Your task to perform on an android device: turn on the 12-hour format for clock Image 0: 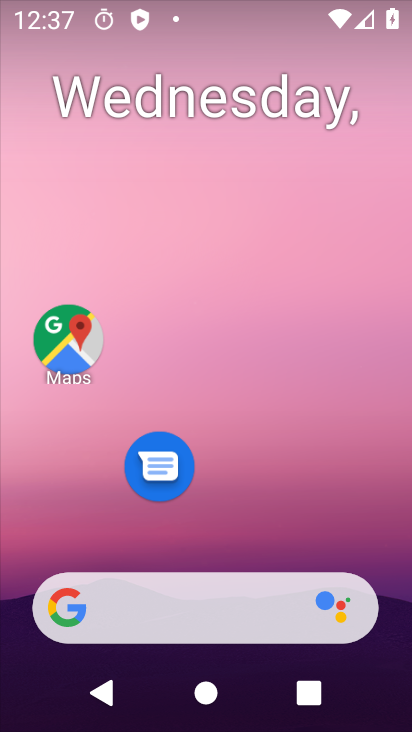
Step 0: drag from (283, 524) to (275, 9)
Your task to perform on an android device: turn on the 12-hour format for clock Image 1: 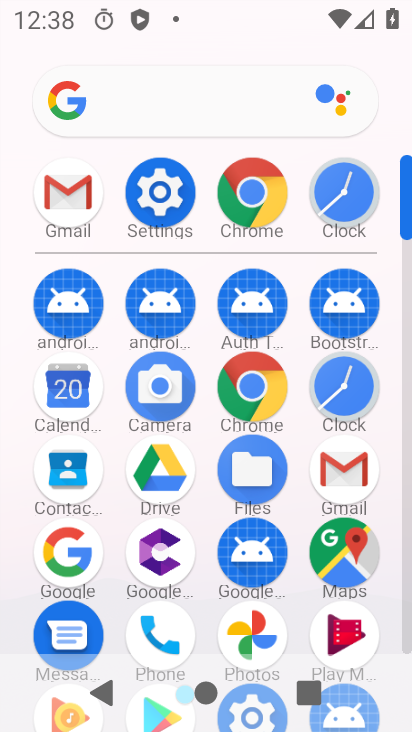
Step 1: click (339, 209)
Your task to perform on an android device: turn on the 12-hour format for clock Image 2: 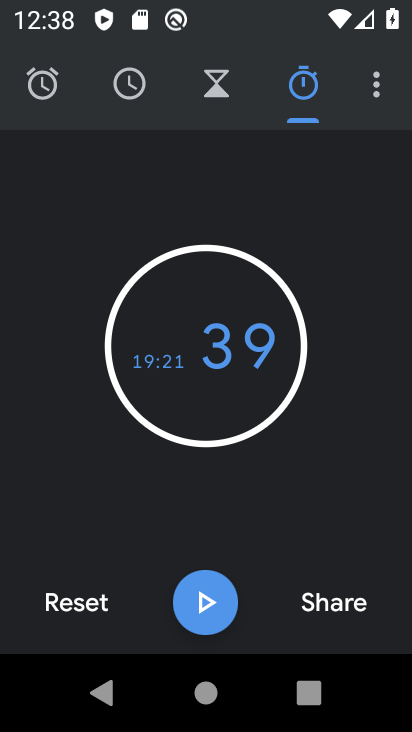
Step 2: click (395, 95)
Your task to perform on an android device: turn on the 12-hour format for clock Image 3: 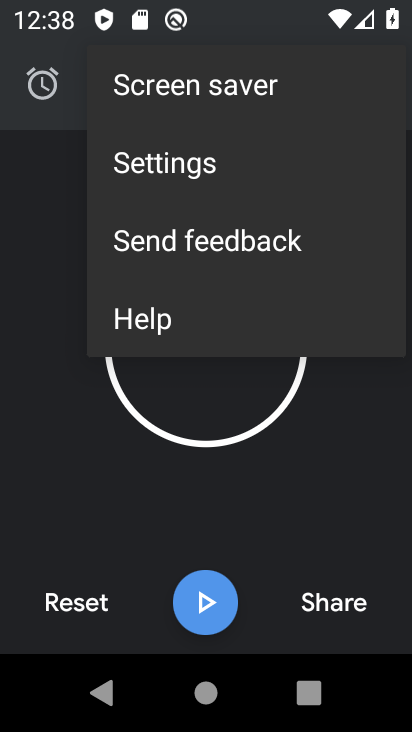
Step 3: click (251, 179)
Your task to perform on an android device: turn on the 12-hour format for clock Image 4: 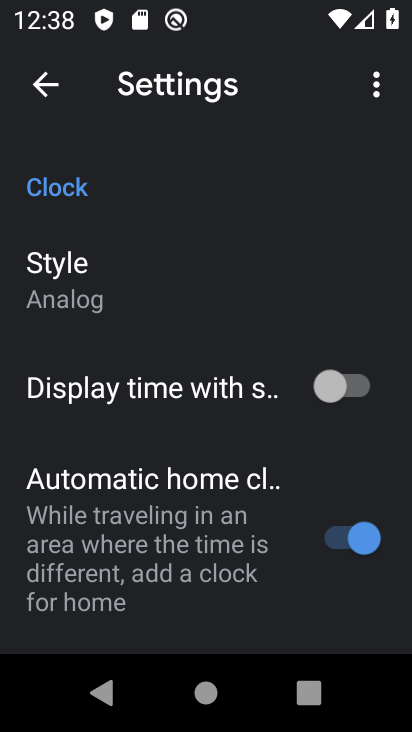
Step 4: drag from (88, 443) to (86, 246)
Your task to perform on an android device: turn on the 12-hour format for clock Image 5: 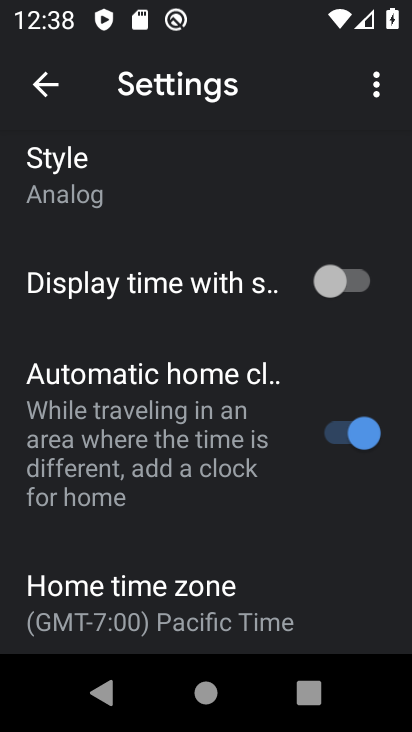
Step 5: drag from (144, 530) to (153, 309)
Your task to perform on an android device: turn on the 12-hour format for clock Image 6: 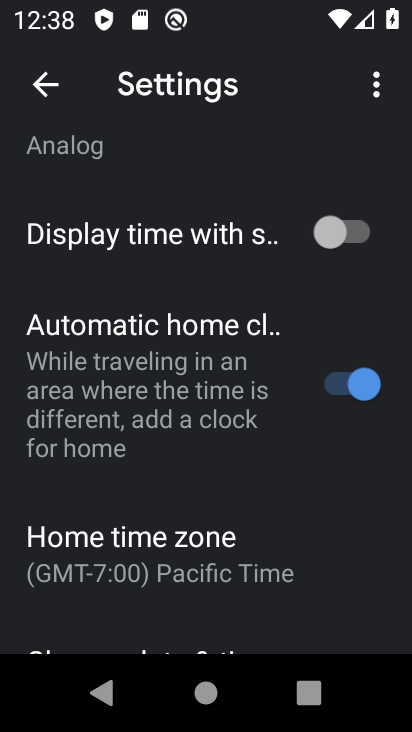
Step 6: drag from (154, 489) to (142, 205)
Your task to perform on an android device: turn on the 12-hour format for clock Image 7: 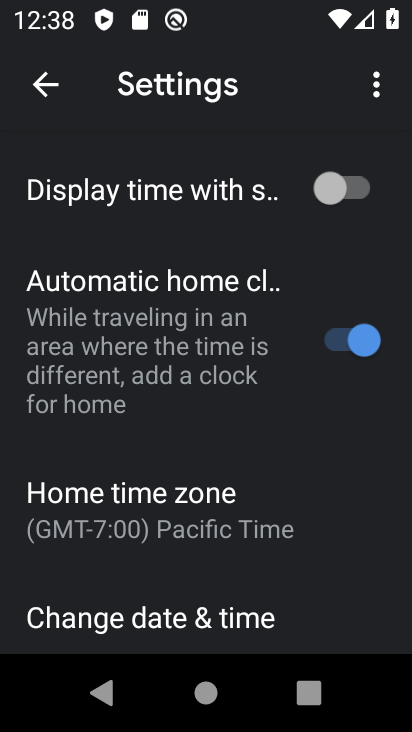
Step 7: click (132, 613)
Your task to perform on an android device: turn on the 12-hour format for clock Image 8: 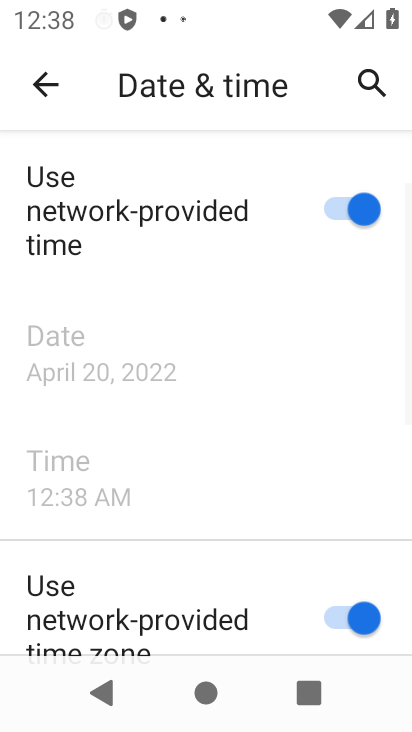
Step 8: drag from (240, 603) to (232, 172)
Your task to perform on an android device: turn on the 12-hour format for clock Image 9: 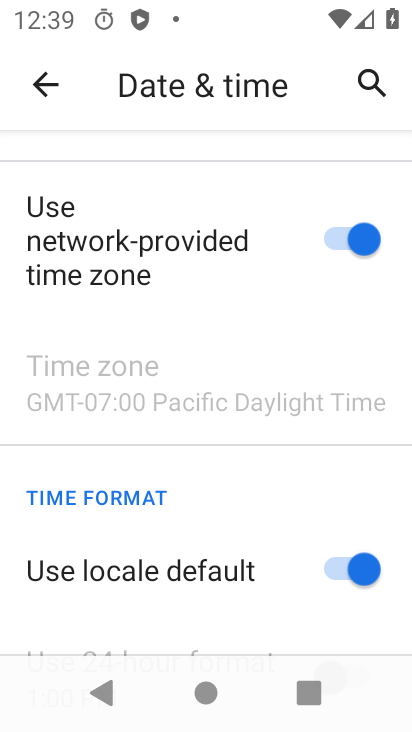
Step 9: drag from (206, 496) to (230, 267)
Your task to perform on an android device: turn on the 12-hour format for clock Image 10: 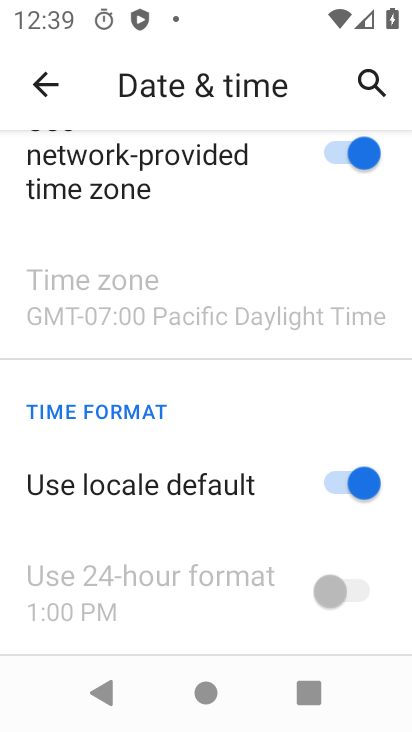
Step 10: click (350, 484)
Your task to perform on an android device: turn on the 12-hour format for clock Image 11: 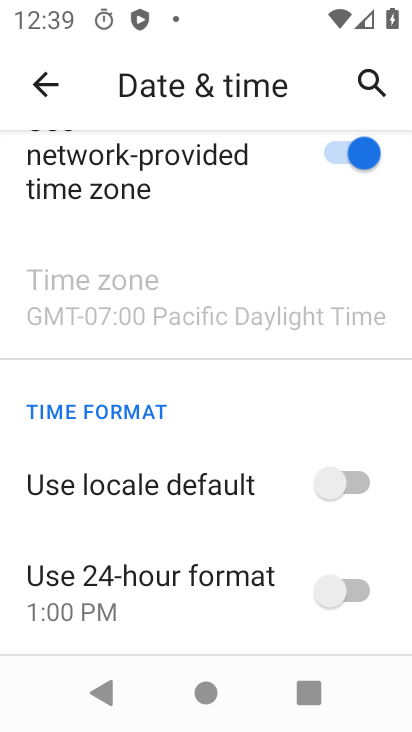
Step 11: task complete